Your task to perform on an android device: Search for seafood restaurants on Google Maps Image 0: 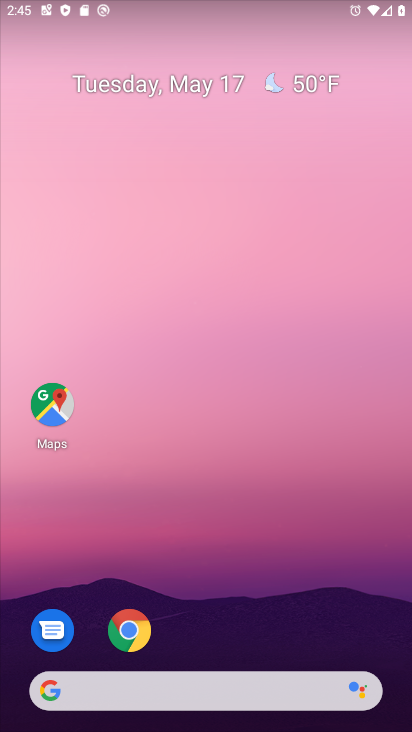
Step 0: click (125, 625)
Your task to perform on an android device: Search for seafood restaurants on Google Maps Image 1: 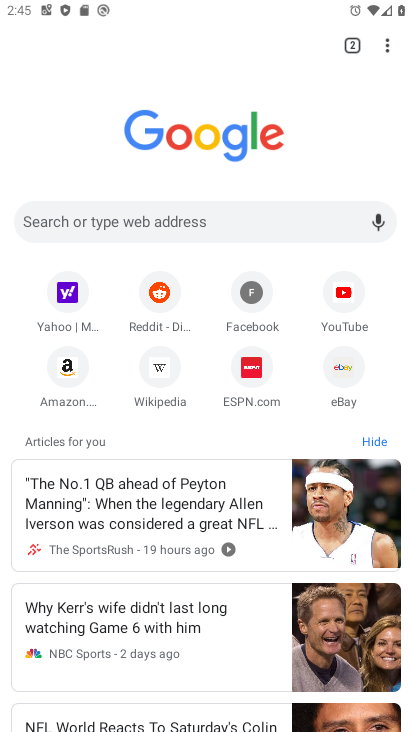
Step 1: press home button
Your task to perform on an android device: Search for seafood restaurants on Google Maps Image 2: 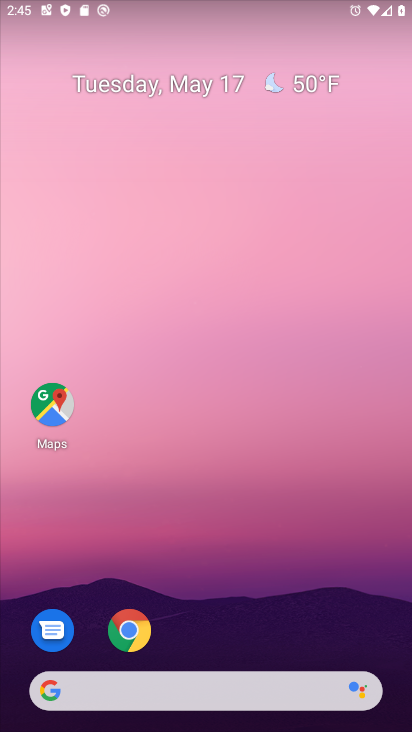
Step 2: click (40, 419)
Your task to perform on an android device: Search for seafood restaurants on Google Maps Image 3: 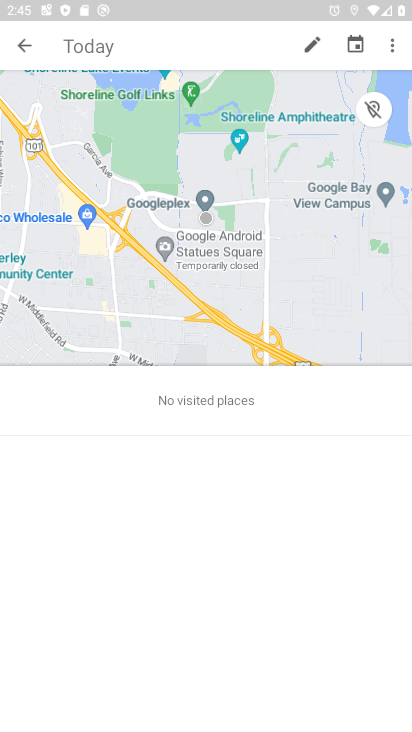
Step 3: click (25, 50)
Your task to perform on an android device: Search for seafood restaurants on Google Maps Image 4: 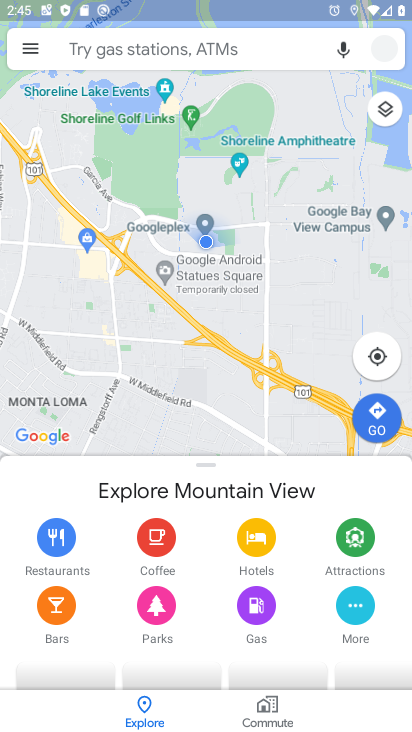
Step 4: click (125, 50)
Your task to perform on an android device: Search for seafood restaurants on Google Maps Image 5: 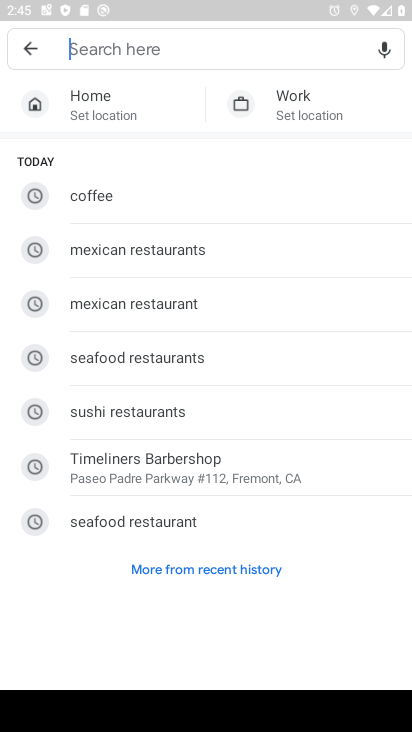
Step 5: click (98, 354)
Your task to perform on an android device: Search for seafood restaurants on Google Maps Image 6: 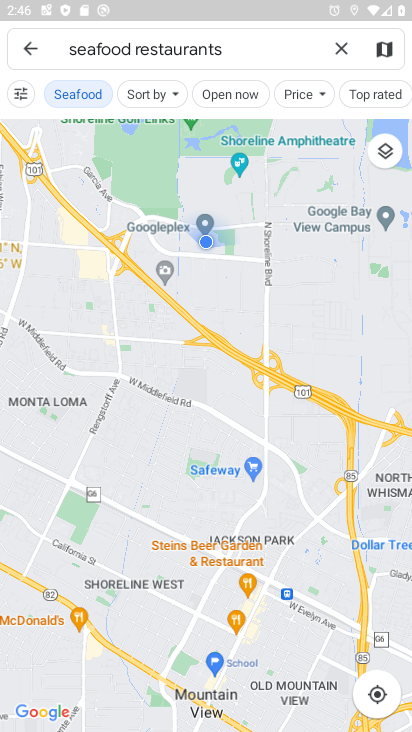
Step 6: task complete